Your task to perform on an android device: find which apps use the phone's location Image 0: 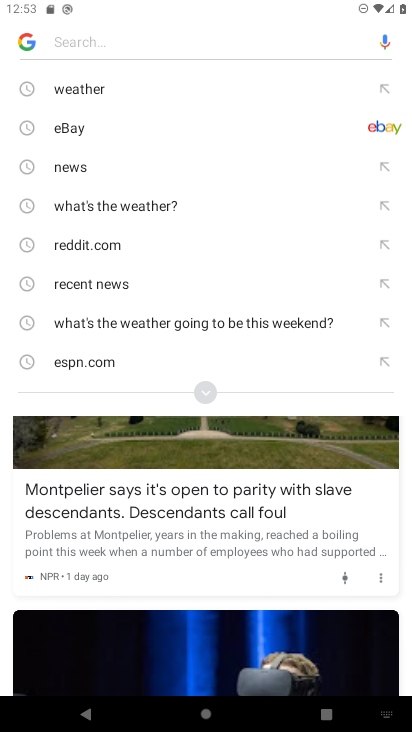
Step 0: press home button
Your task to perform on an android device: find which apps use the phone's location Image 1: 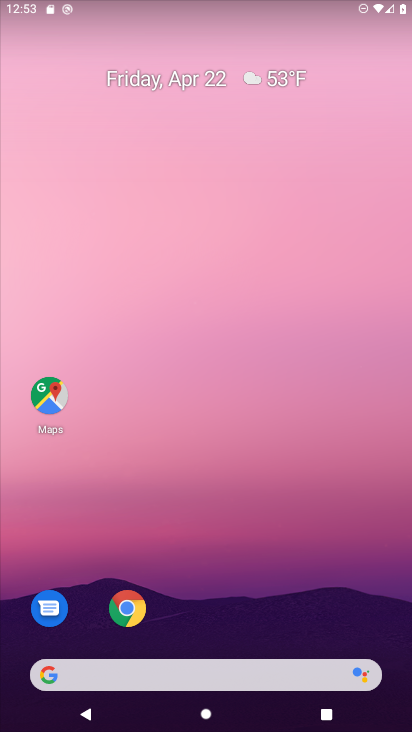
Step 1: drag from (360, 622) to (287, 189)
Your task to perform on an android device: find which apps use the phone's location Image 2: 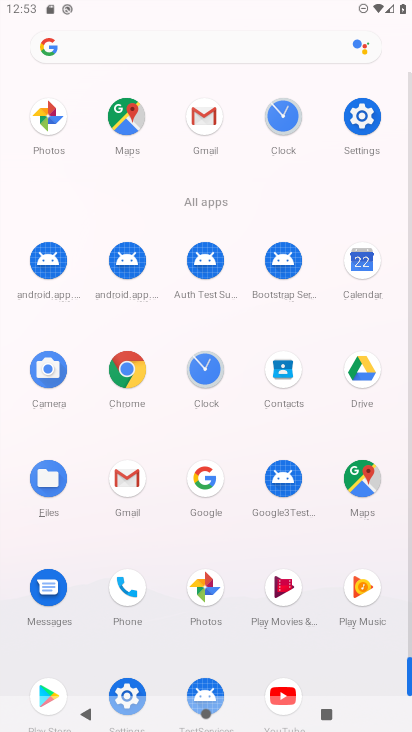
Step 2: click (408, 646)
Your task to perform on an android device: find which apps use the phone's location Image 3: 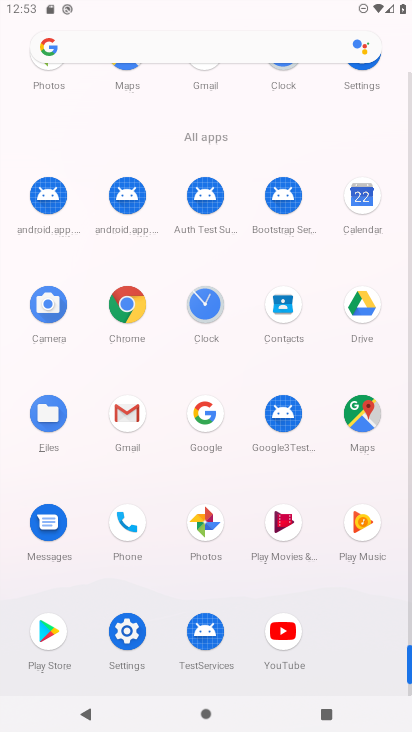
Step 3: click (123, 633)
Your task to perform on an android device: find which apps use the phone's location Image 4: 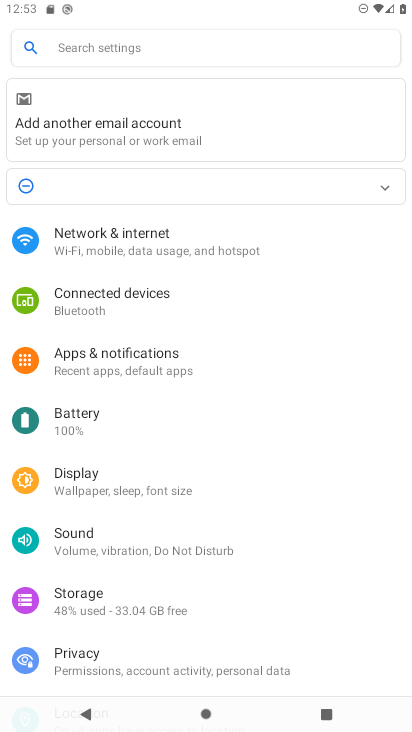
Step 4: drag from (233, 570) to (203, 251)
Your task to perform on an android device: find which apps use the phone's location Image 5: 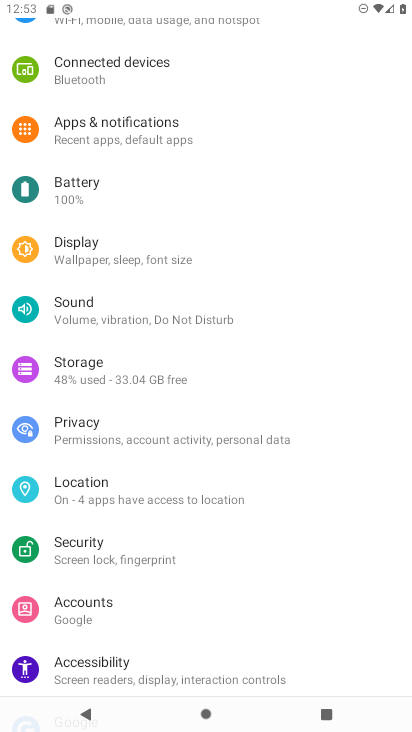
Step 5: click (86, 483)
Your task to perform on an android device: find which apps use the phone's location Image 6: 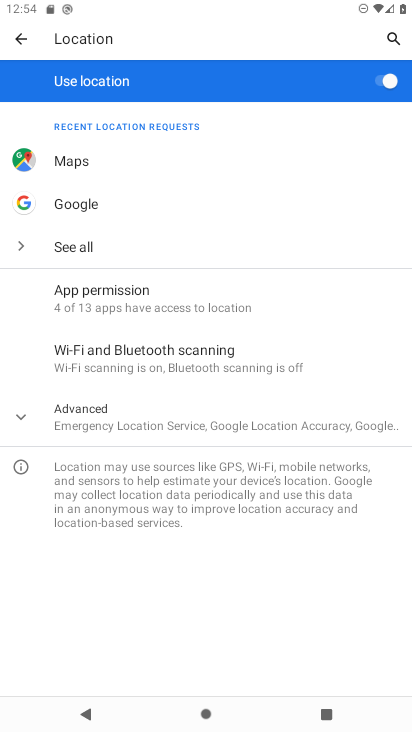
Step 6: click (87, 295)
Your task to perform on an android device: find which apps use the phone's location Image 7: 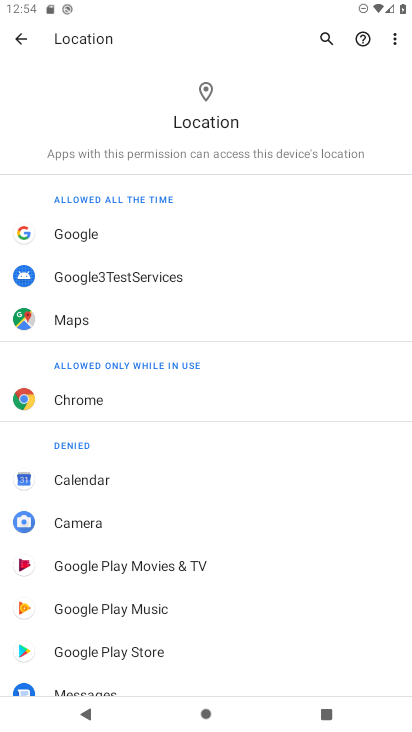
Step 7: drag from (251, 585) to (263, 260)
Your task to perform on an android device: find which apps use the phone's location Image 8: 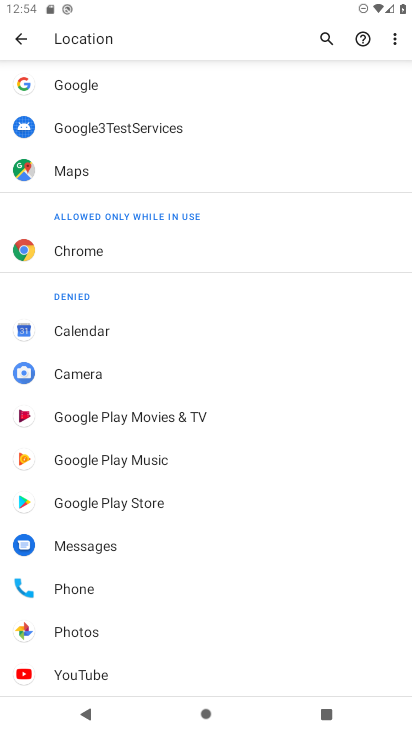
Step 8: drag from (219, 612) to (249, 235)
Your task to perform on an android device: find which apps use the phone's location Image 9: 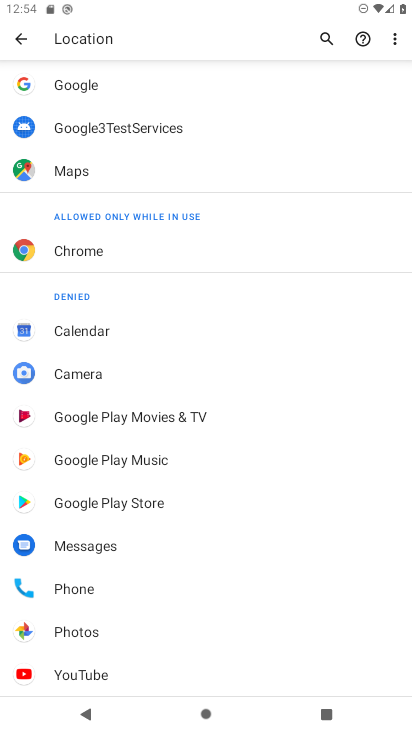
Step 9: click (55, 629)
Your task to perform on an android device: find which apps use the phone's location Image 10: 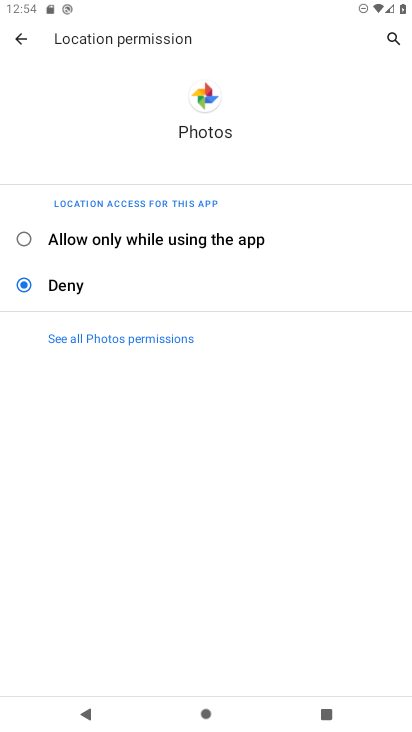
Step 10: task complete